Your task to perform on an android device: Do I have any events tomorrow? Image 0: 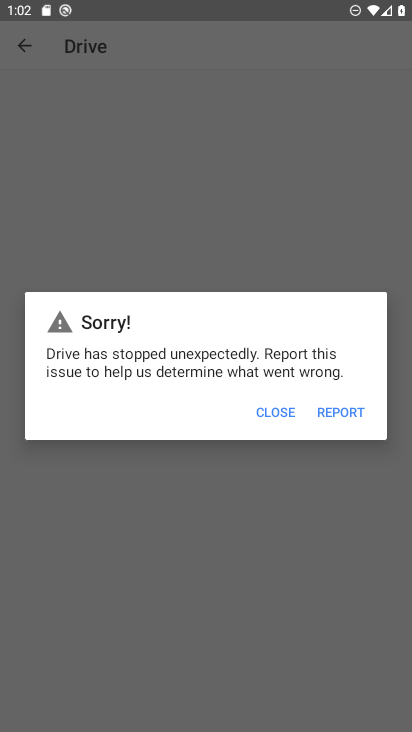
Step 0: press home button
Your task to perform on an android device: Do I have any events tomorrow? Image 1: 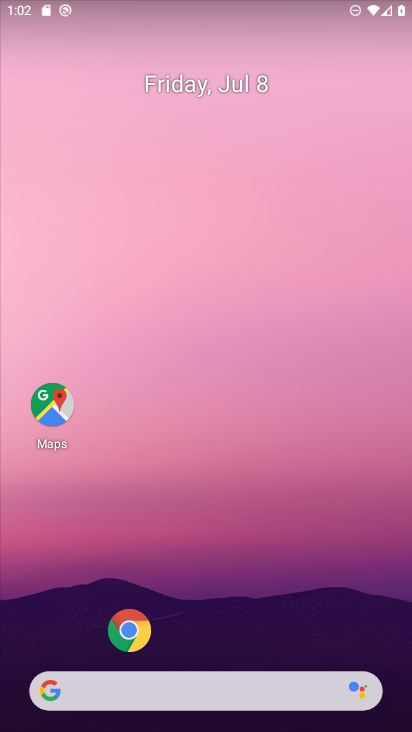
Step 1: drag from (232, 705) to (205, 1)
Your task to perform on an android device: Do I have any events tomorrow? Image 2: 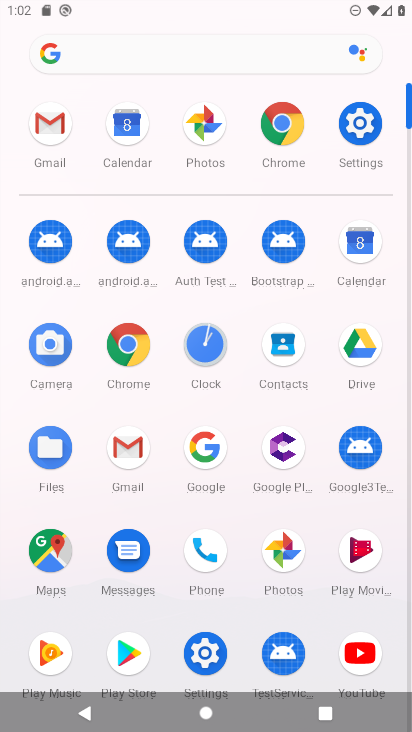
Step 2: drag from (358, 239) to (239, 285)
Your task to perform on an android device: Do I have any events tomorrow? Image 3: 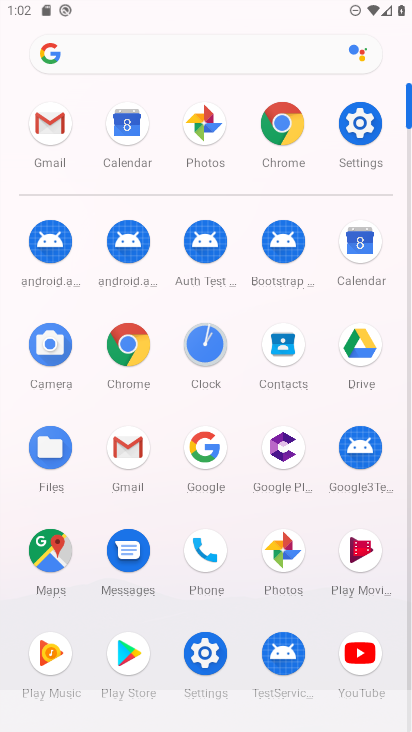
Step 3: click (363, 243)
Your task to perform on an android device: Do I have any events tomorrow? Image 4: 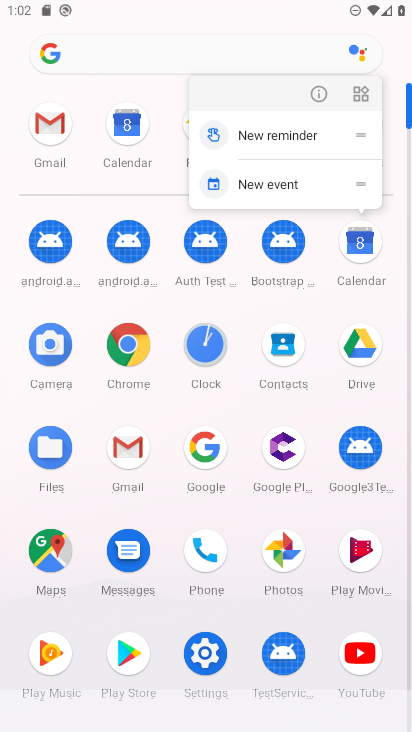
Step 4: click (351, 256)
Your task to perform on an android device: Do I have any events tomorrow? Image 5: 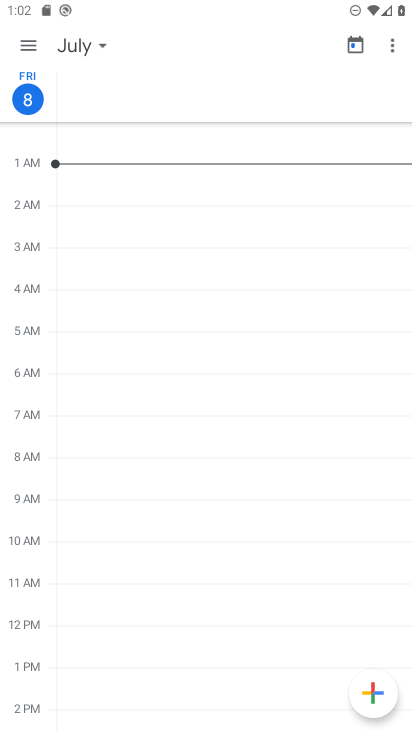
Step 5: click (99, 44)
Your task to perform on an android device: Do I have any events tomorrow? Image 6: 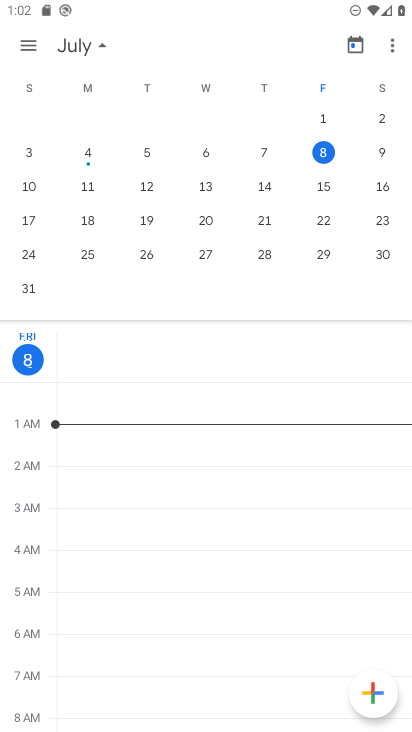
Step 6: task complete